Your task to perform on an android device: clear history in the chrome app Image 0: 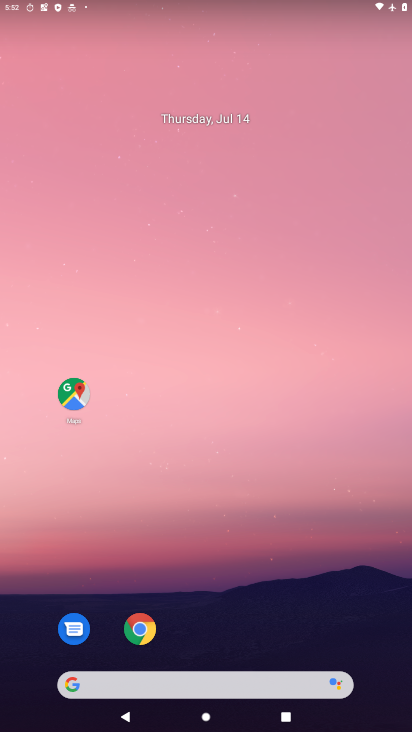
Step 0: drag from (309, 682) to (338, 73)
Your task to perform on an android device: clear history in the chrome app Image 1: 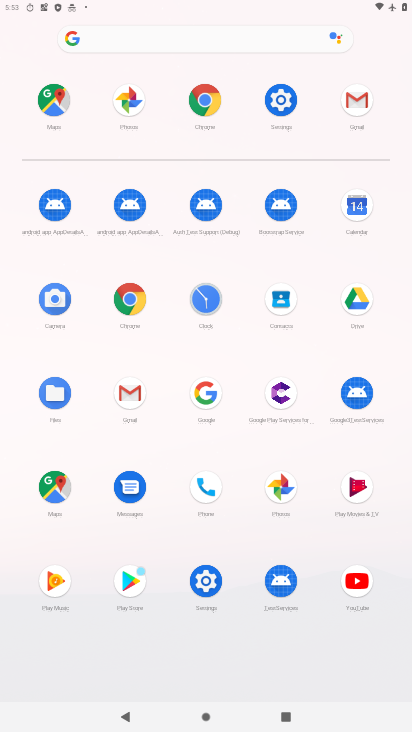
Step 1: click (133, 304)
Your task to perform on an android device: clear history in the chrome app Image 2: 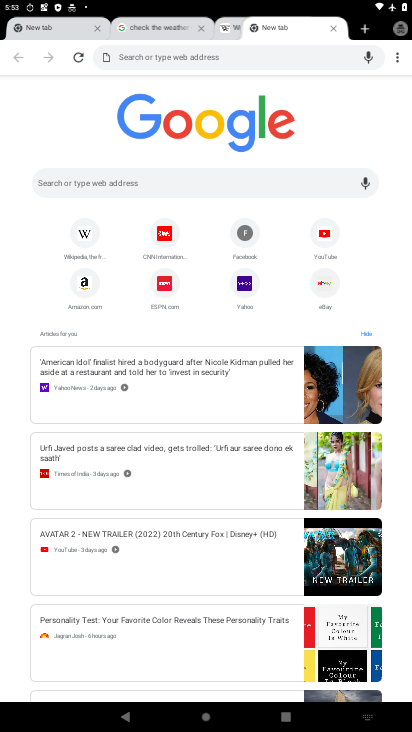
Step 2: drag from (393, 65) to (314, 180)
Your task to perform on an android device: clear history in the chrome app Image 3: 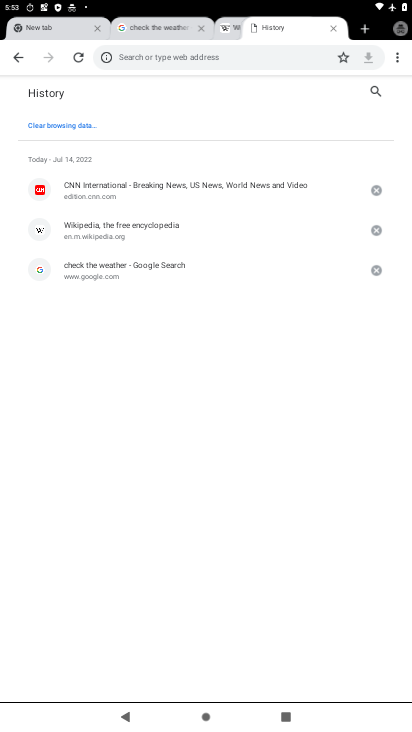
Step 3: click (85, 125)
Your task to perform on an android device: clear history in the chrome app Image 4: 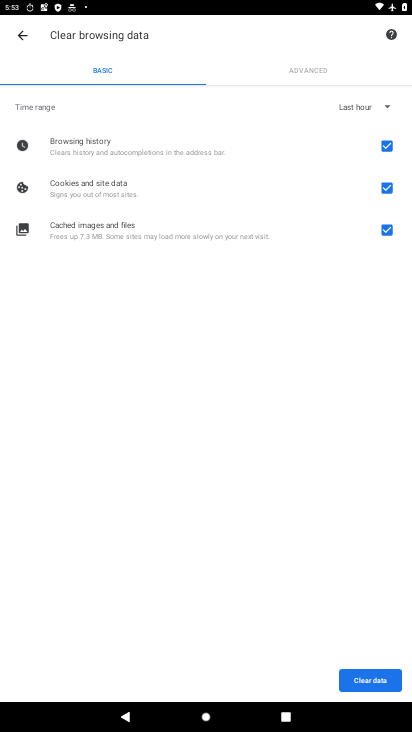
Step 4: click (370, 684)
Your task to perform on an android device: clear history in the chrome app Image 5: 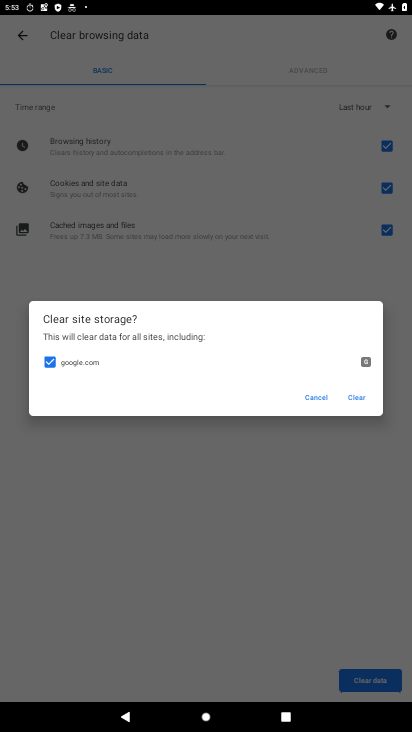
Step 5: click (354, 398)
Your task to perform on an android device: clear history in the chrome app Image 6: 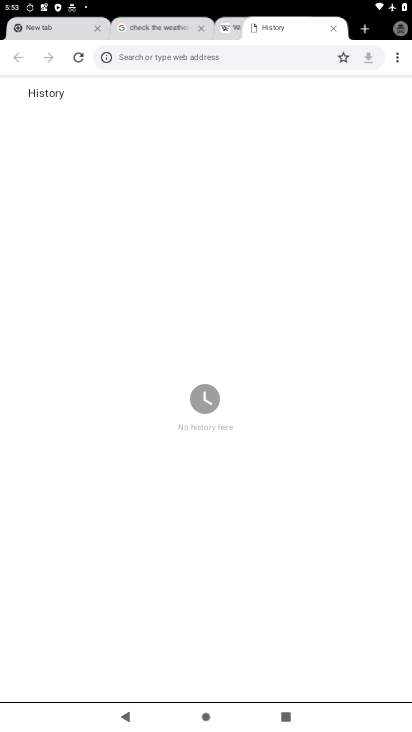
Step 6: press home button
Your task to perform on an android device: clear history in the chrome app Image 7: 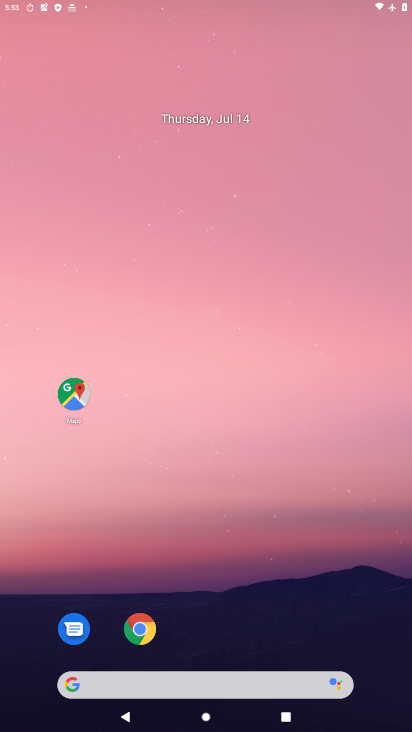
Step 7: drag from (300, 700) to (305, 121)
Your task to perform on an android device: clear history in the chrome app Image 8: 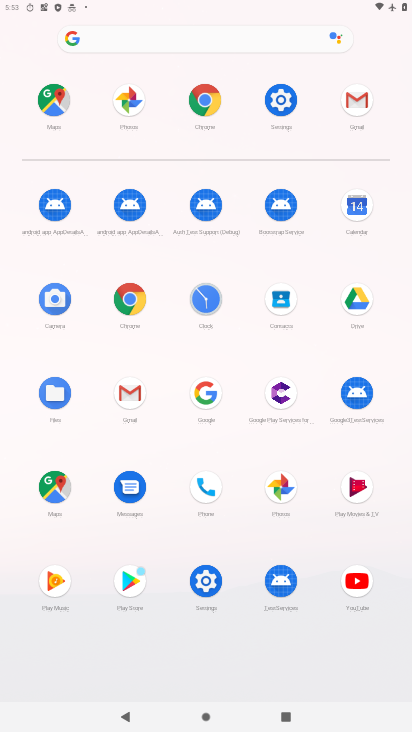
Step 8: click (137, 293)
Your task to perform on an android device: clear history in the chrome app Image 9: 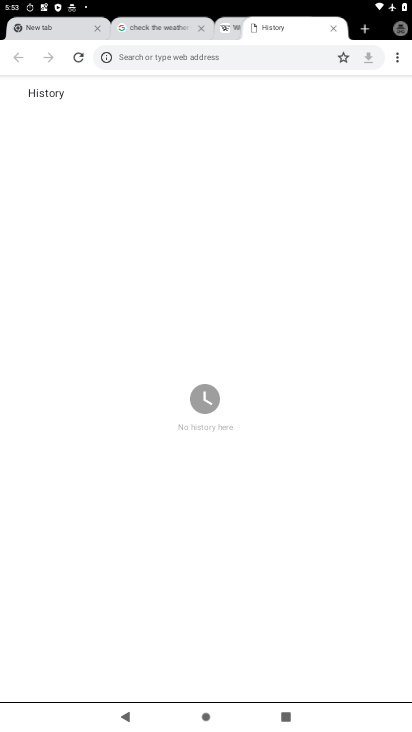
Step 9: task complete